Your task to perform on an android device: change alarm snooze length Image 0: 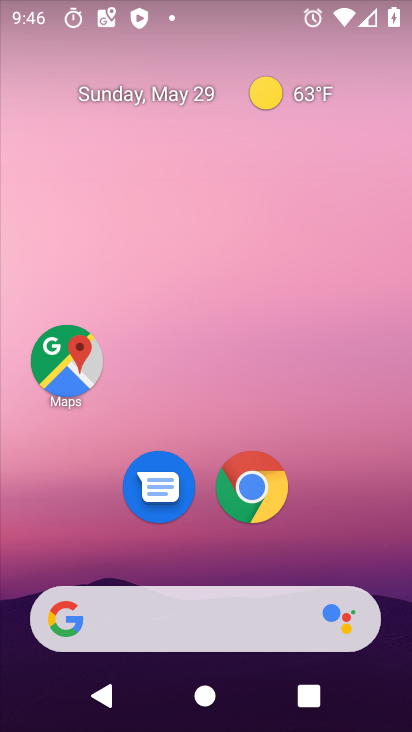
Step 0: drag from (264, 523) to (285, 226)
Your task to perform on an android device: change alarm snooze length Image 1: 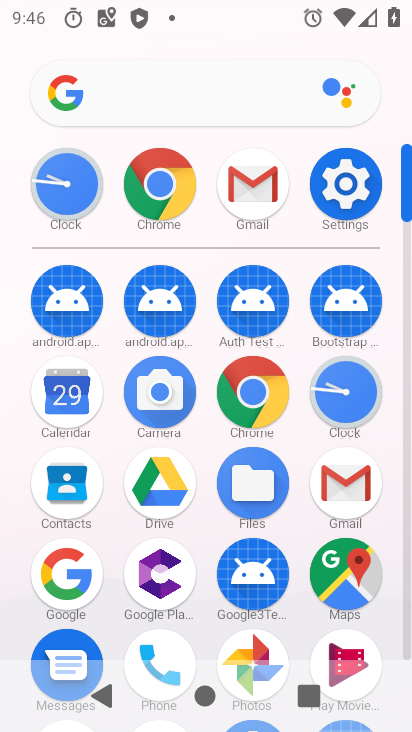
Step 1: click (332, 401)
Your task to perform on an android device: change alarm snooze length Image 2: 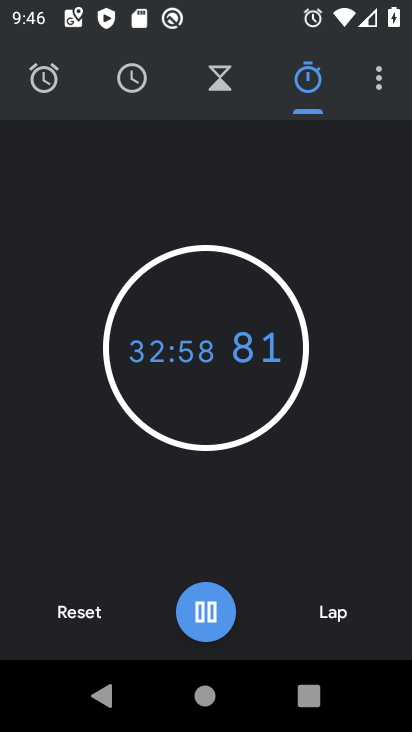
Step 2: click (384, 102)
Your task to perform on an android device: change alarm snooze length Image 3: 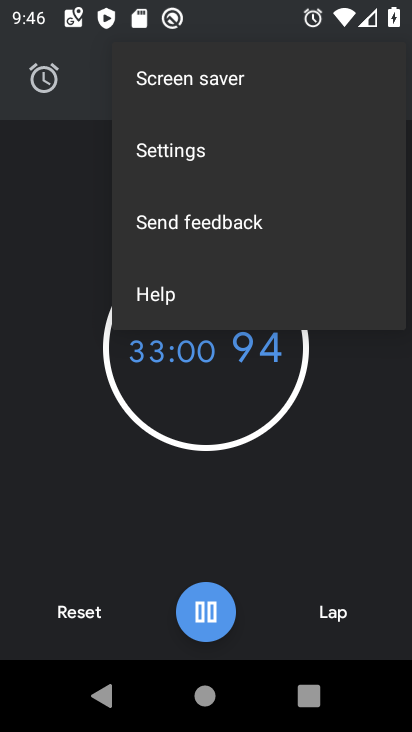
Step 3: click (205, 173)
Your task to perform on an android device: change alarm snooze length Image 4: 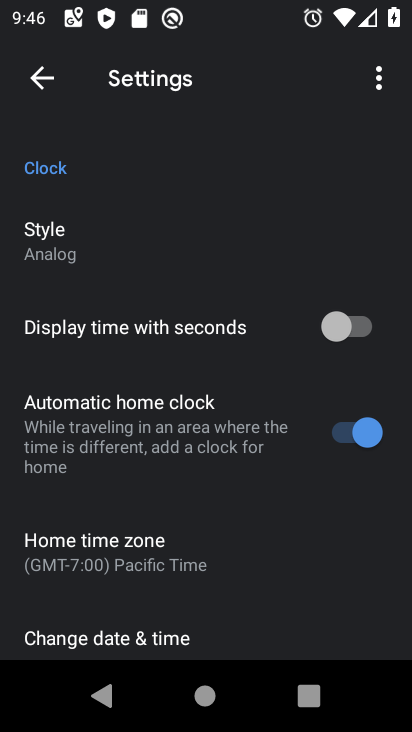
Step 4: drag from (249, 527) to (239, 143)
Your task to perform on an android device: change alarm snooze length Image 5: 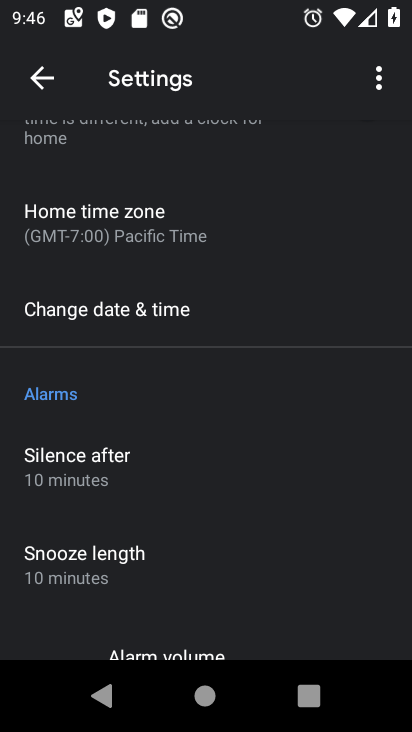
Step 5: click (144, 571)
Your task to perform on an android device: change alarm snooze length Image 6: 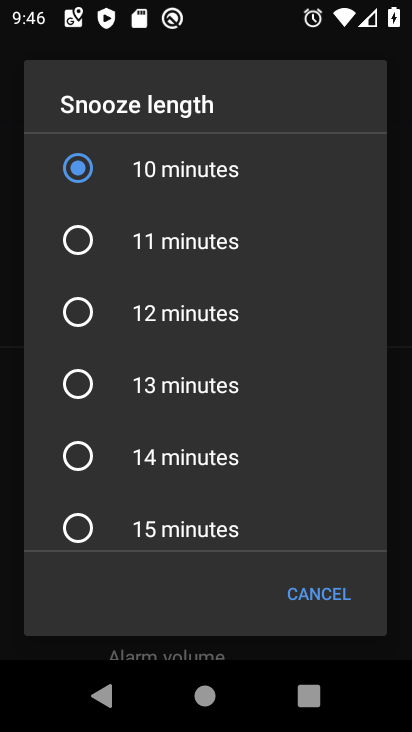
Step 6: click (225, 238)
Your task to perform on an android device: change alarm snooze length Image 7: 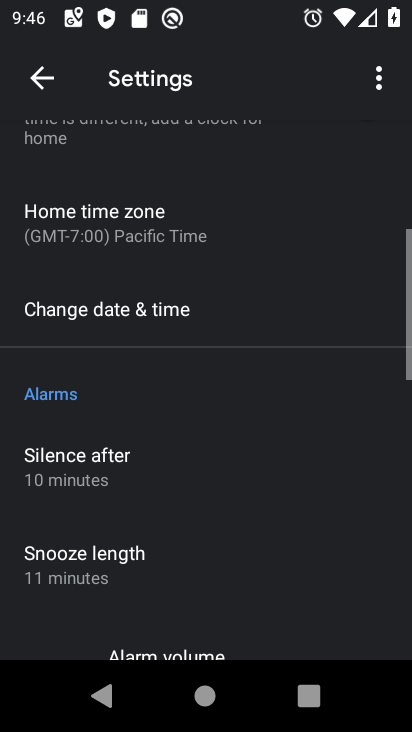
Step 7: task complete